Your task to perform on an android device: remove spam from my inbox in the gmail app Image 0: 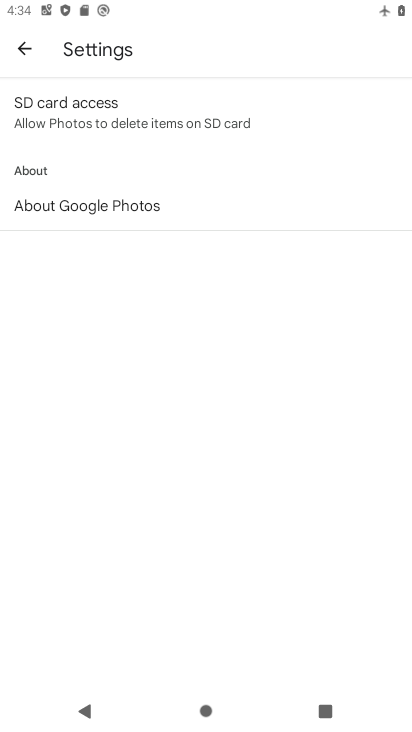
Step 0: press home button
Your task to perform on an android device: remove spam from my inbox in the gmail app Image 1: 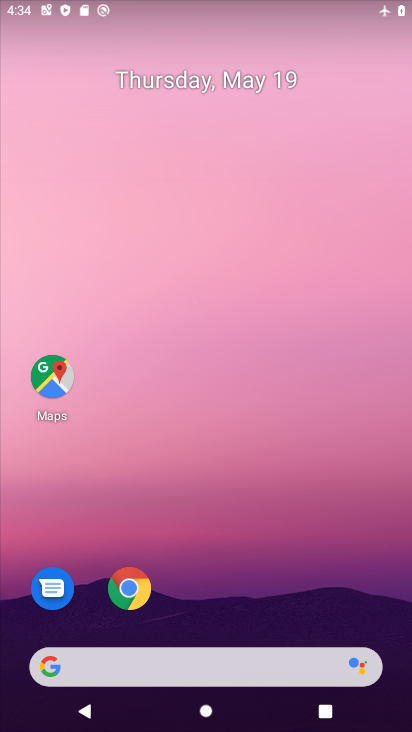
Step 1: drag from (186, 623) to (250, 60)
Your task to perform on an android device: remove spam from my inbox in the gmail app Image 2: 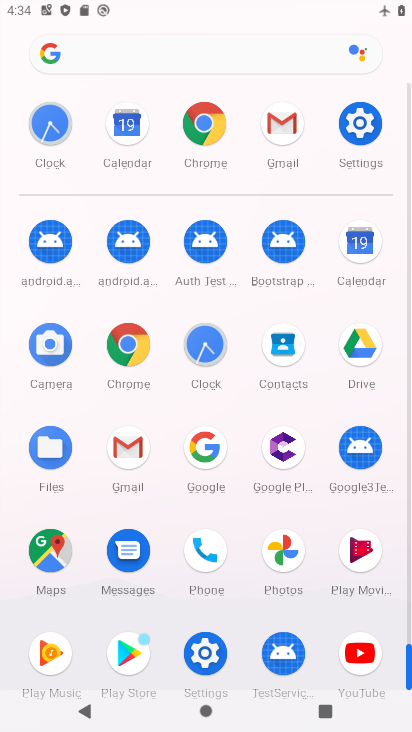
Step 2: click (139, 466)
Your task to perform on an android device: remove spam from my inbox in the gmail app Image 3: 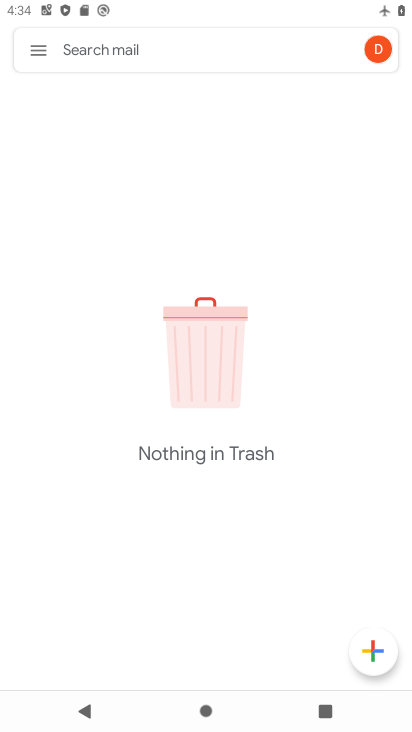
Step 3: click (44, 46)
Your task to perform on an android device: remove spam from my inbox in the gmail app Image 4: 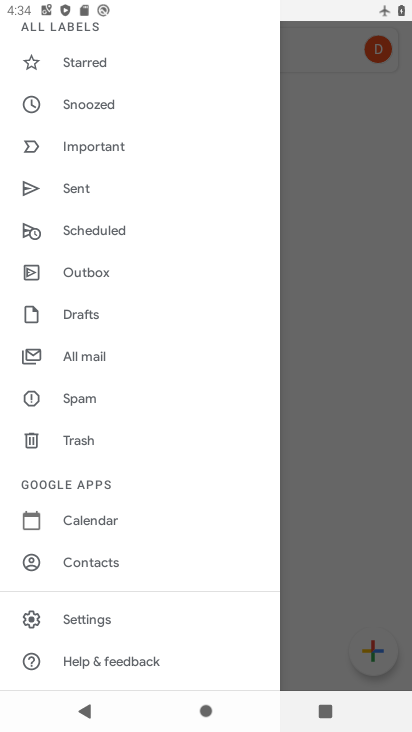
Step 4: click (75, 399)
Your task to perform on an android device: remove spam from my inbox in the gmail app Image 5: 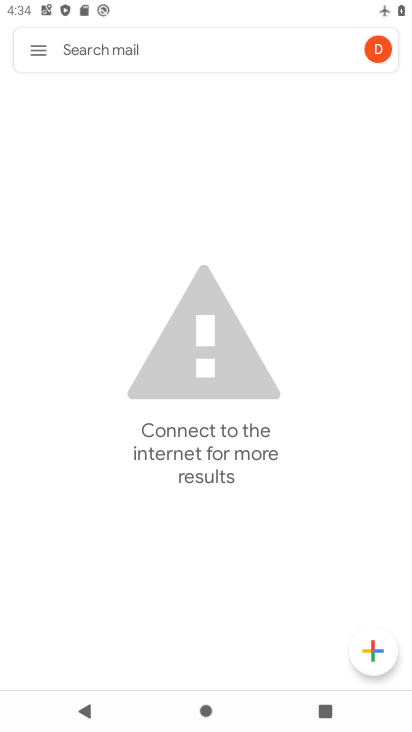
Step 5: task complete